Your task to perform on an android device: turn off wifi Image 0: 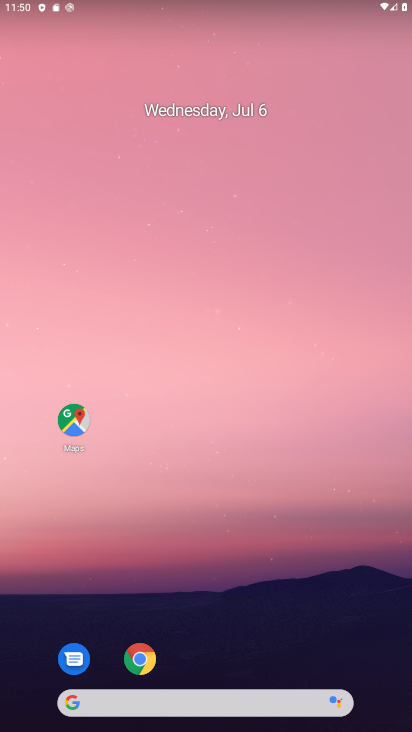
Step 0: drag from (270, 724) to (90, 53)
Your task to perform on an android device: turn off wifi Image 1: 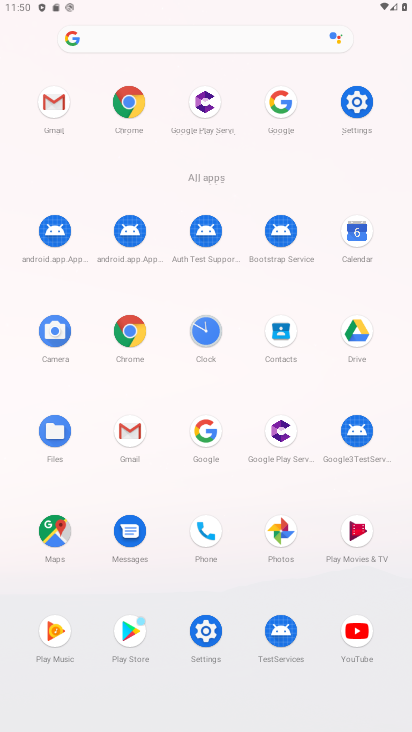
Step 1: click (358, 111)
Your task to perform on an android device: turn off wifi Image 2: 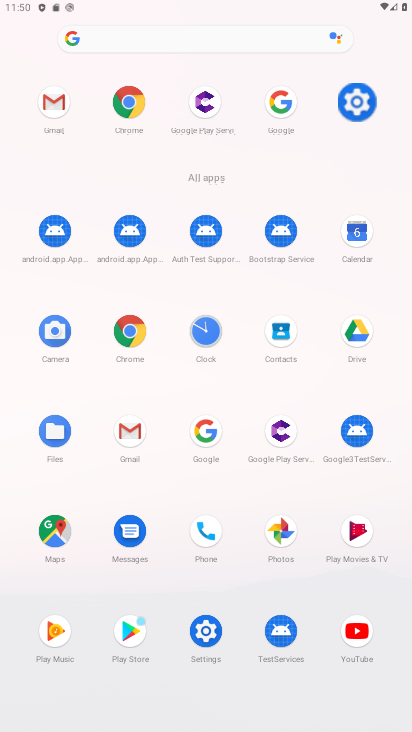
Step 2: click (367, 102)
Your task to perform on an android device: turn off wifi Image 3: 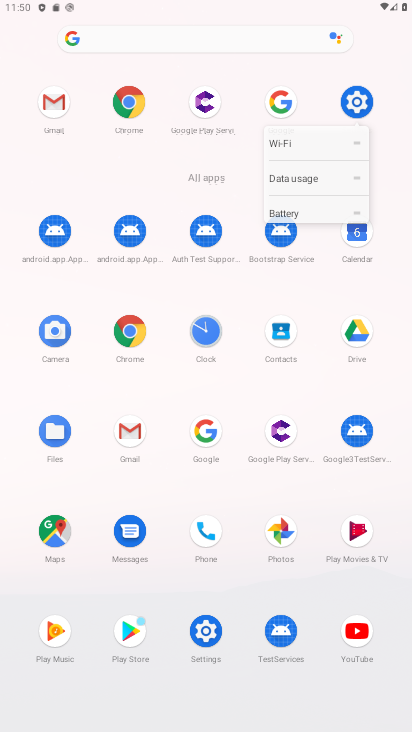
Step 3: click (369, 97)
Your task to perform on an android device: turn off wifi Image 4: 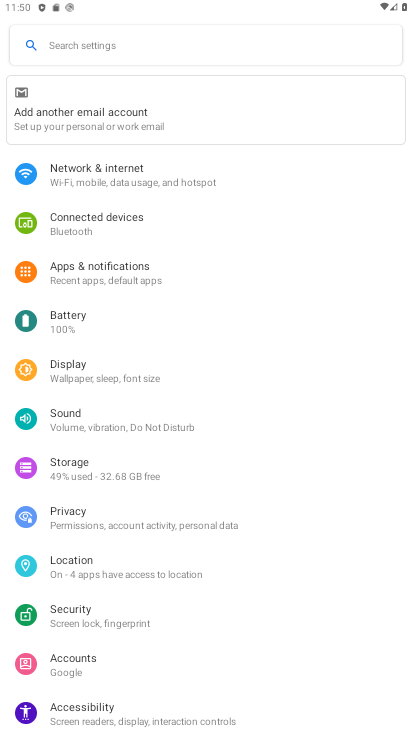
Step 4: click (96, 177)
Your task to perform on an android device: turn off wifi Image 5: 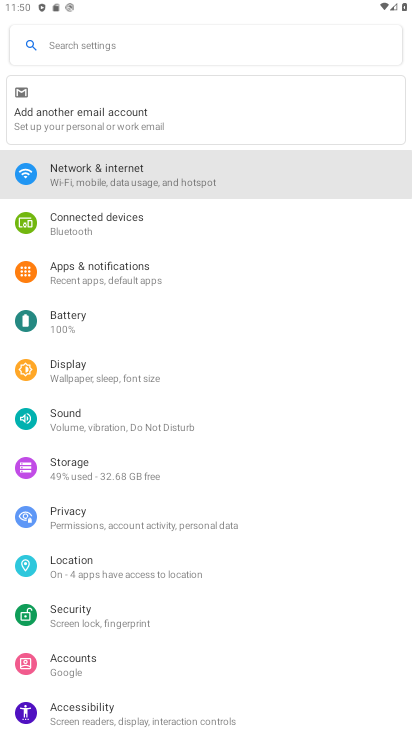
Step 5: click (99, 175)
Your task to perform on an android device: turn off wifi Image 6: 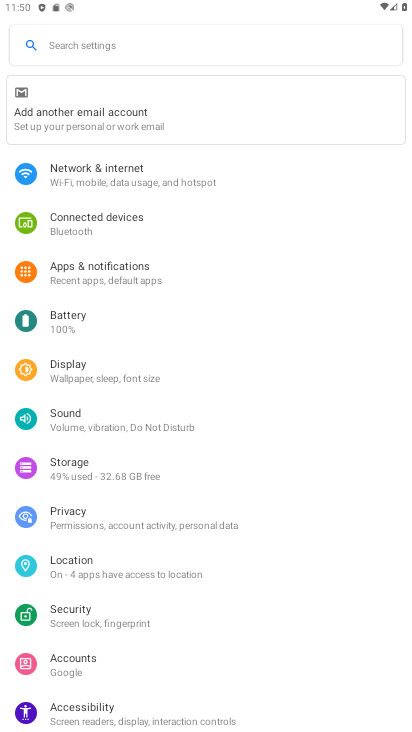
Step 6: click (99, 175)
Your task to perform on an android device: turn off wifi Image 7: 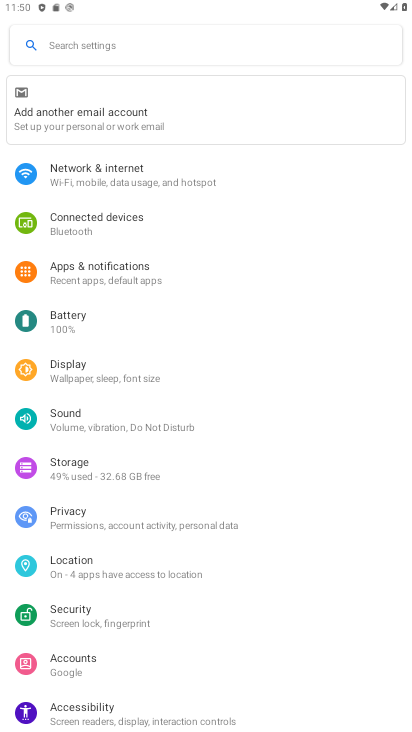
Step 7: click (100, 174)
Your task to perform on an android device: turn off wifi Image 8: 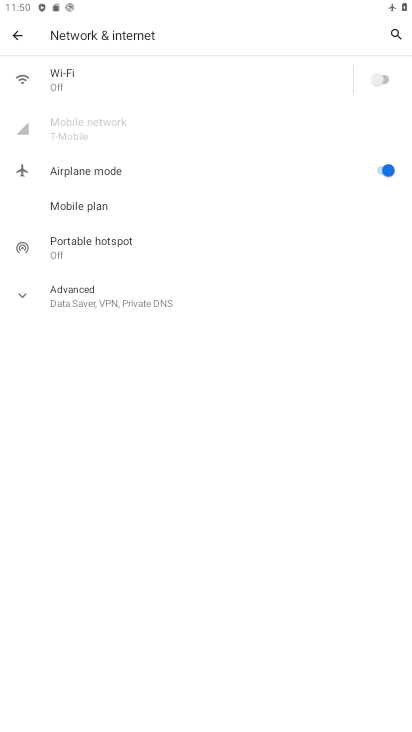
Step 8: click (372, 78)
Your task to perform on an android device: turn off wifi Image 9: 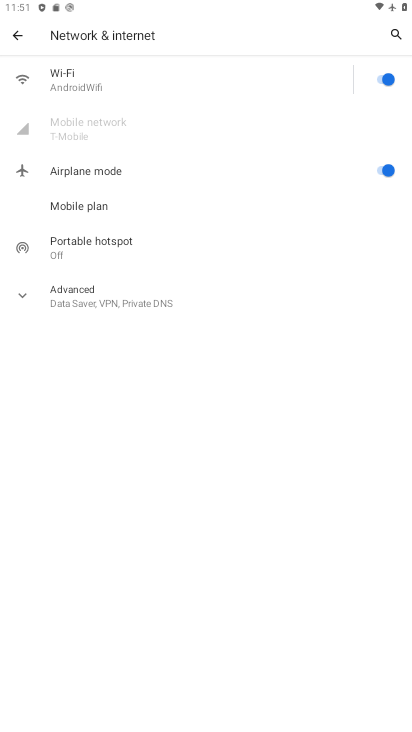
Step 9: task complete